Your task to perform on an android device: uninstall "Google Sheets" Image 0: 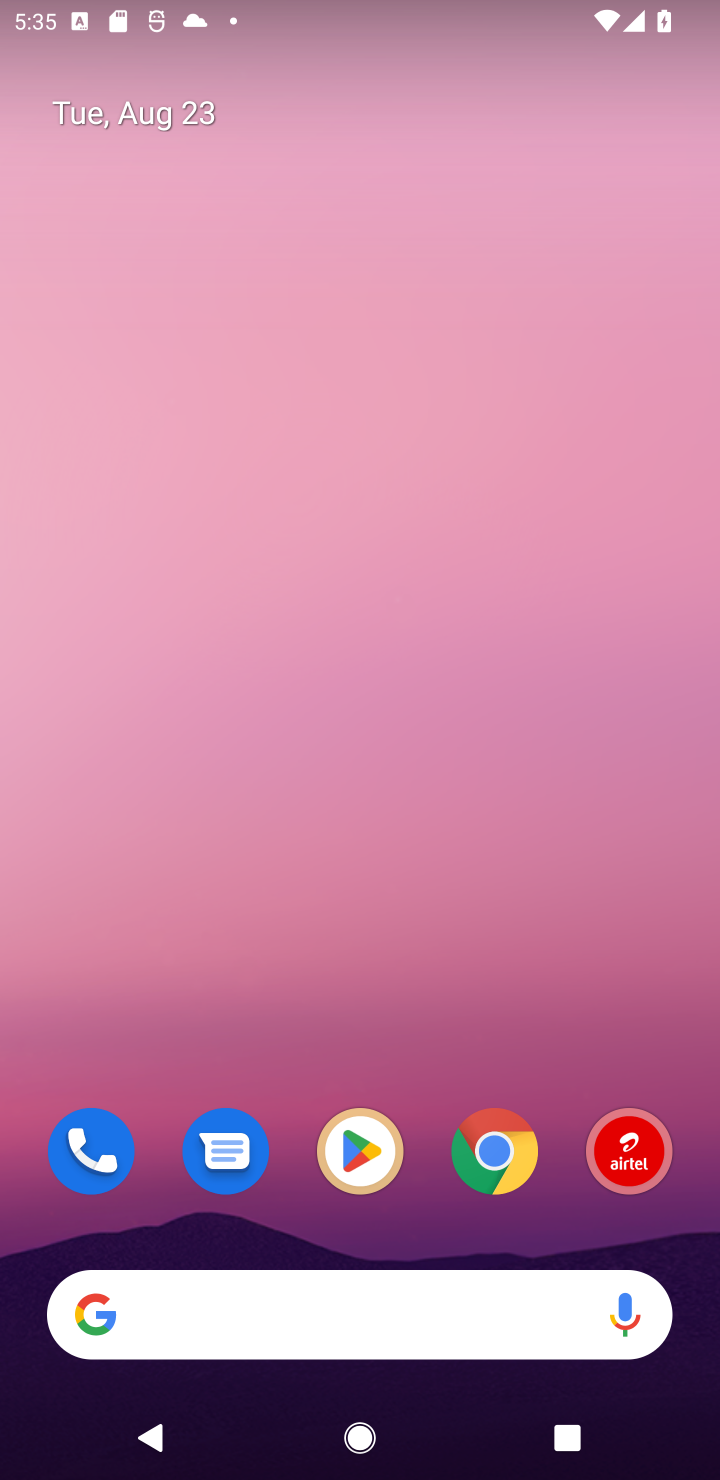
Step 0: press home button
Your task to perform on an android device: uninstall "Google Sheets" Image 1: 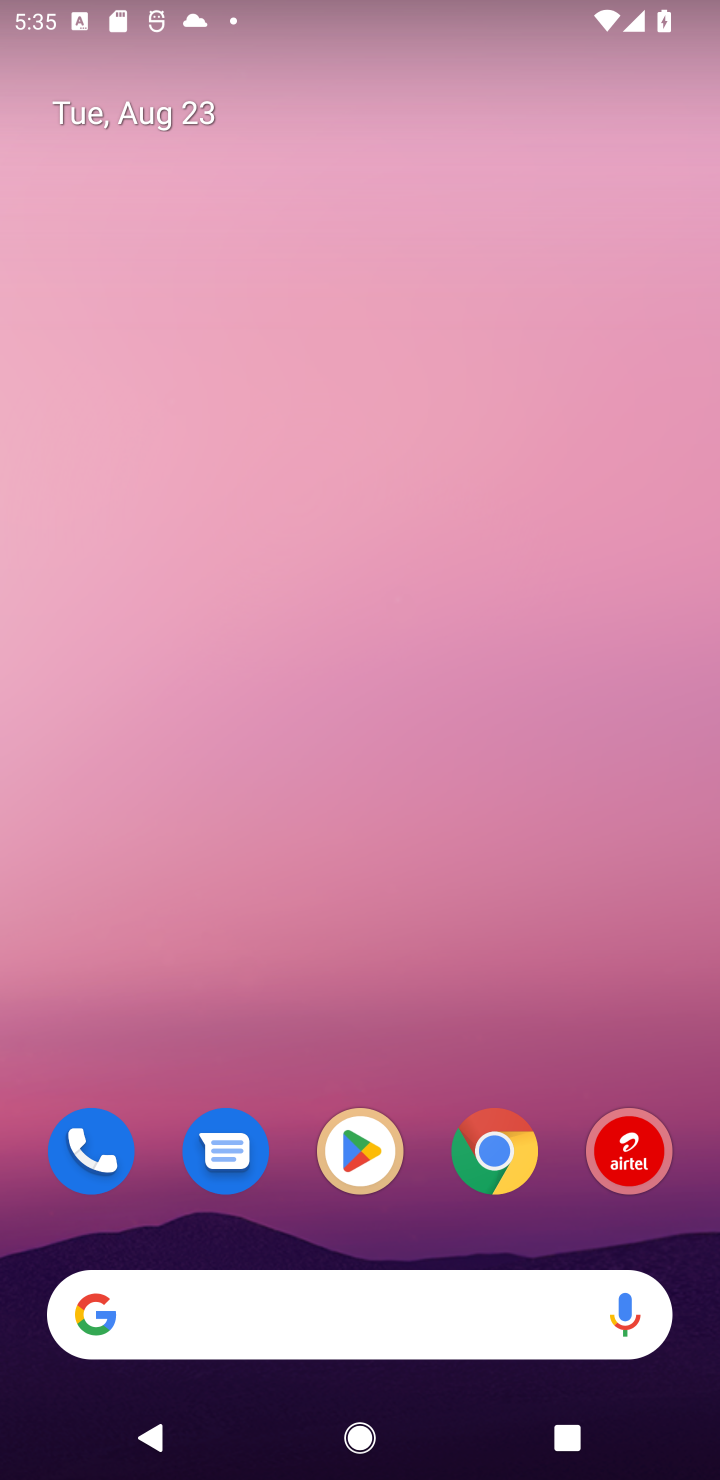
Step 1: click (363, 1158)
Your task to perform on an android device: uninstall "Google Sheets" Image 2: 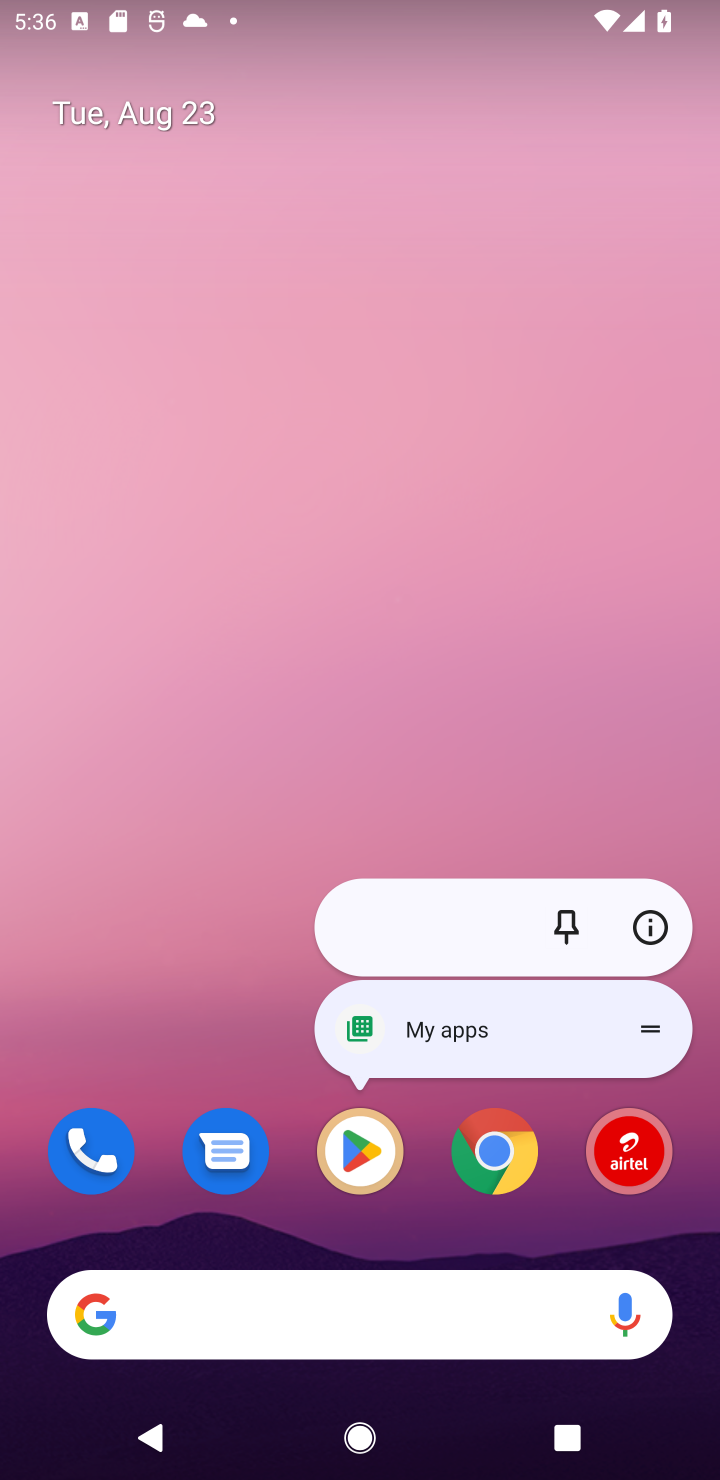
Step 2: click (363, 1161)
Your task to perform on an android device: uninstall "Google Sheets" Image 3: 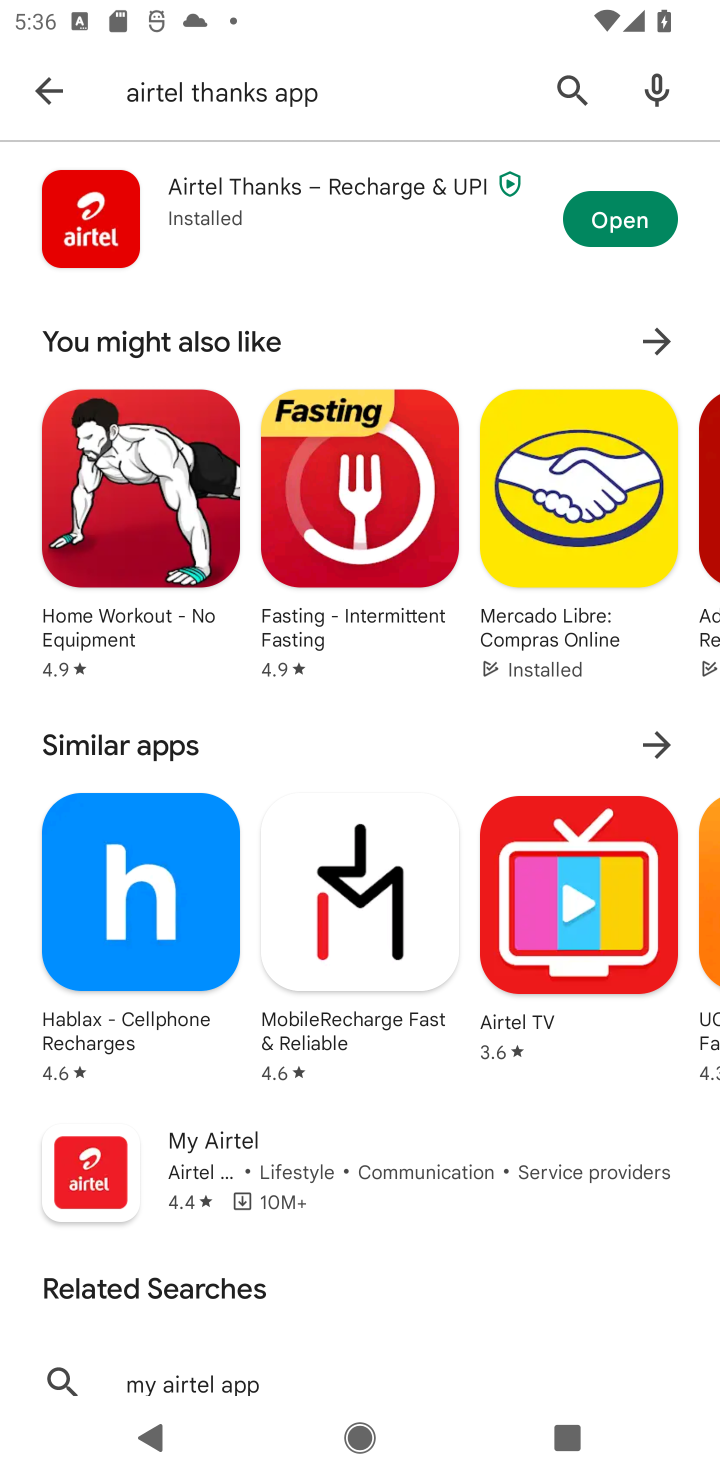
Step 3: click (557, 82)
Your task to perform on an android device: uninstall "Google Sheets" Image 4: 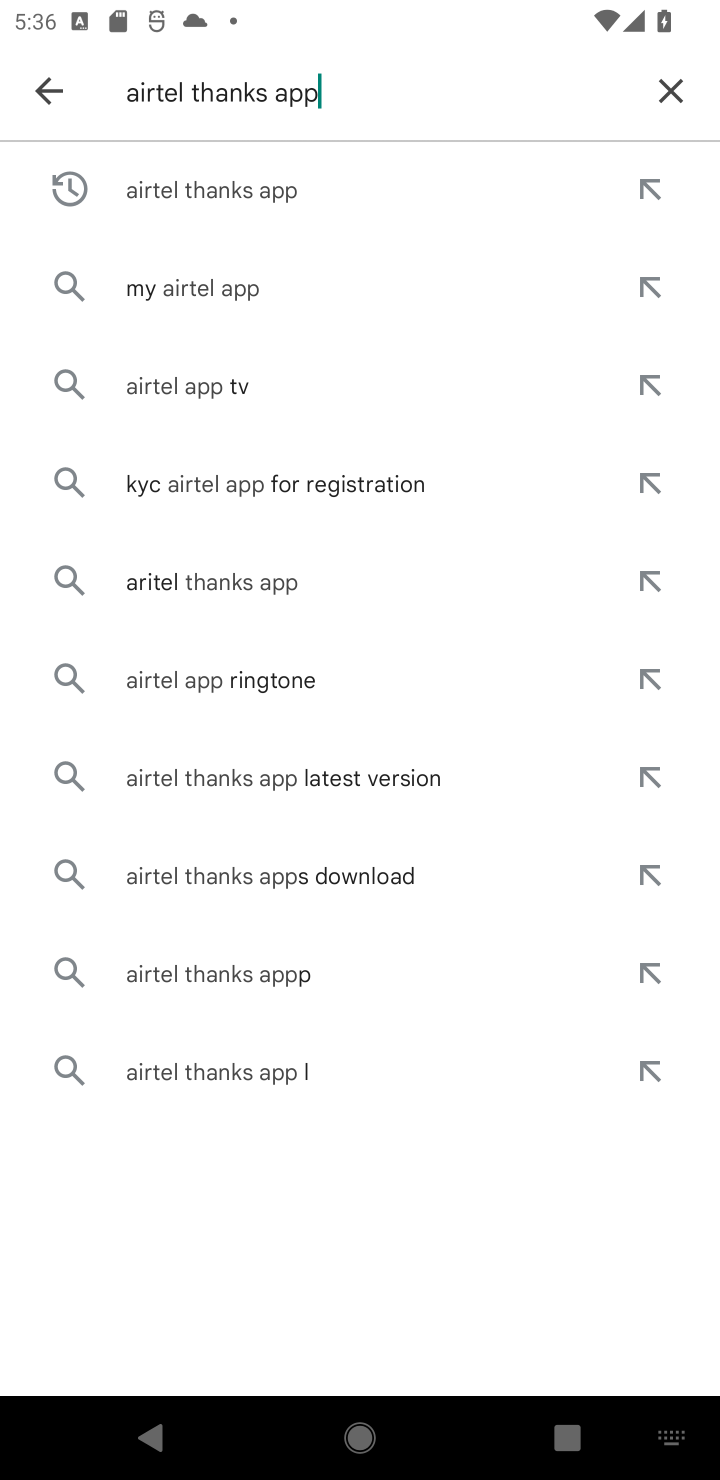
Step 4: click (673, 87)
Your task to perform on an android device: uninstall "Google Sheets" Image 5: 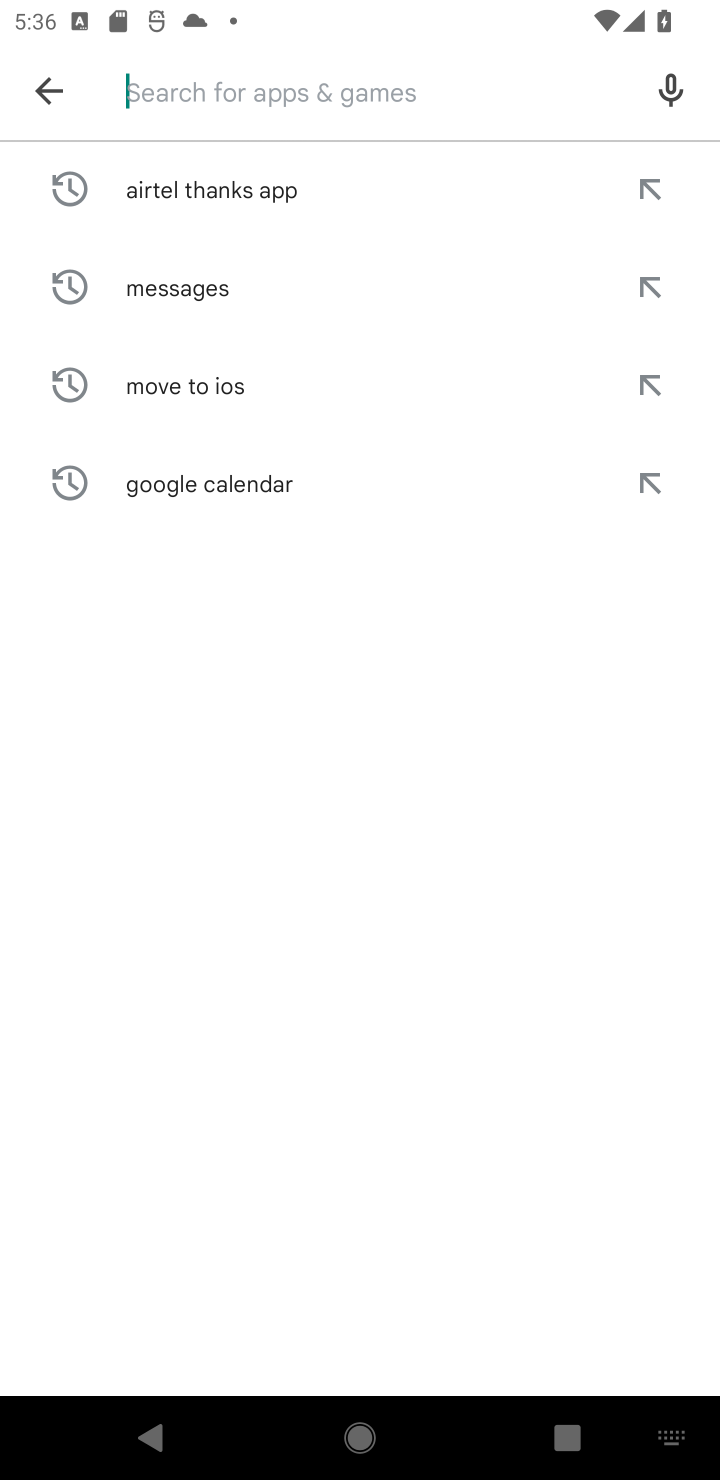
Step 5: type "Google Sheets"
Your task to perform on an android device: uninstall "Google Sheets" Image 6: 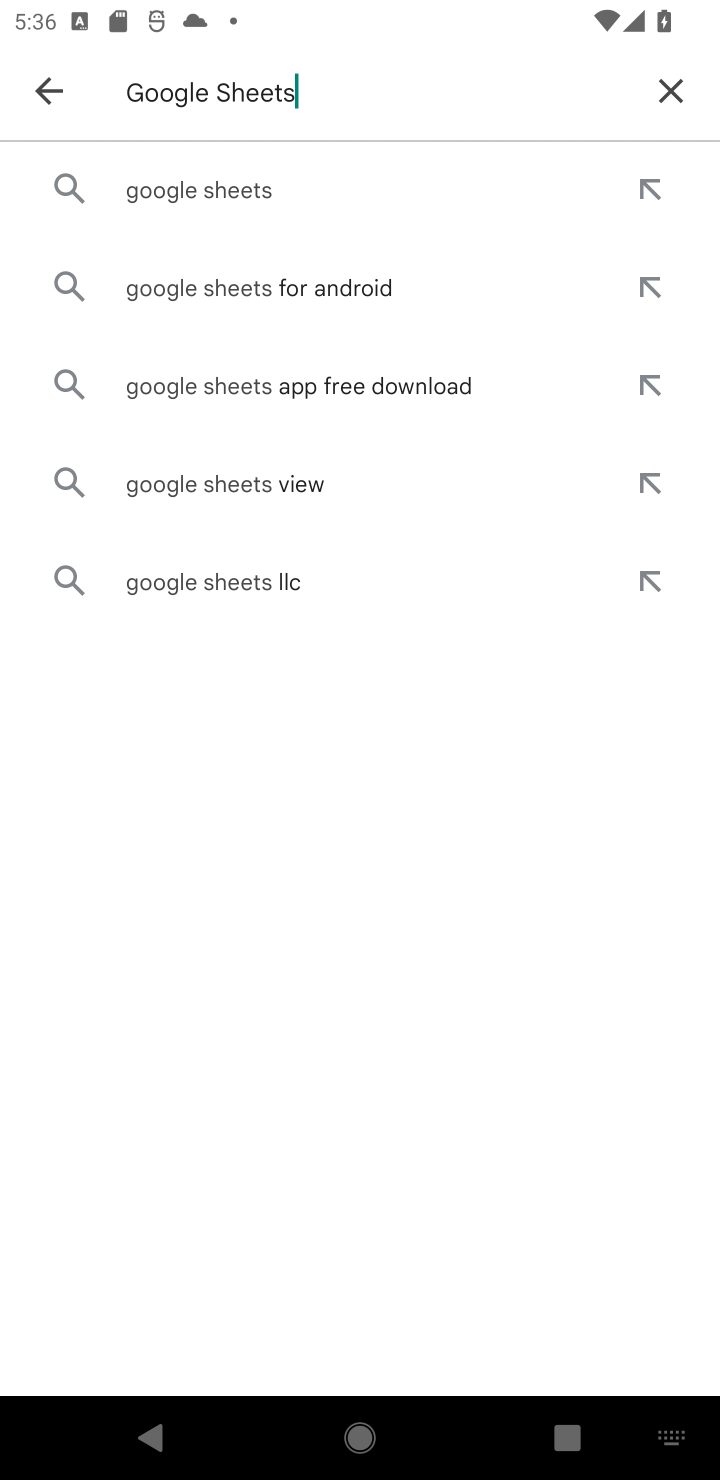
Step 6: click (259, 182)
Your task to perform on an android device: uninstall "Google Sheets" Image 7: 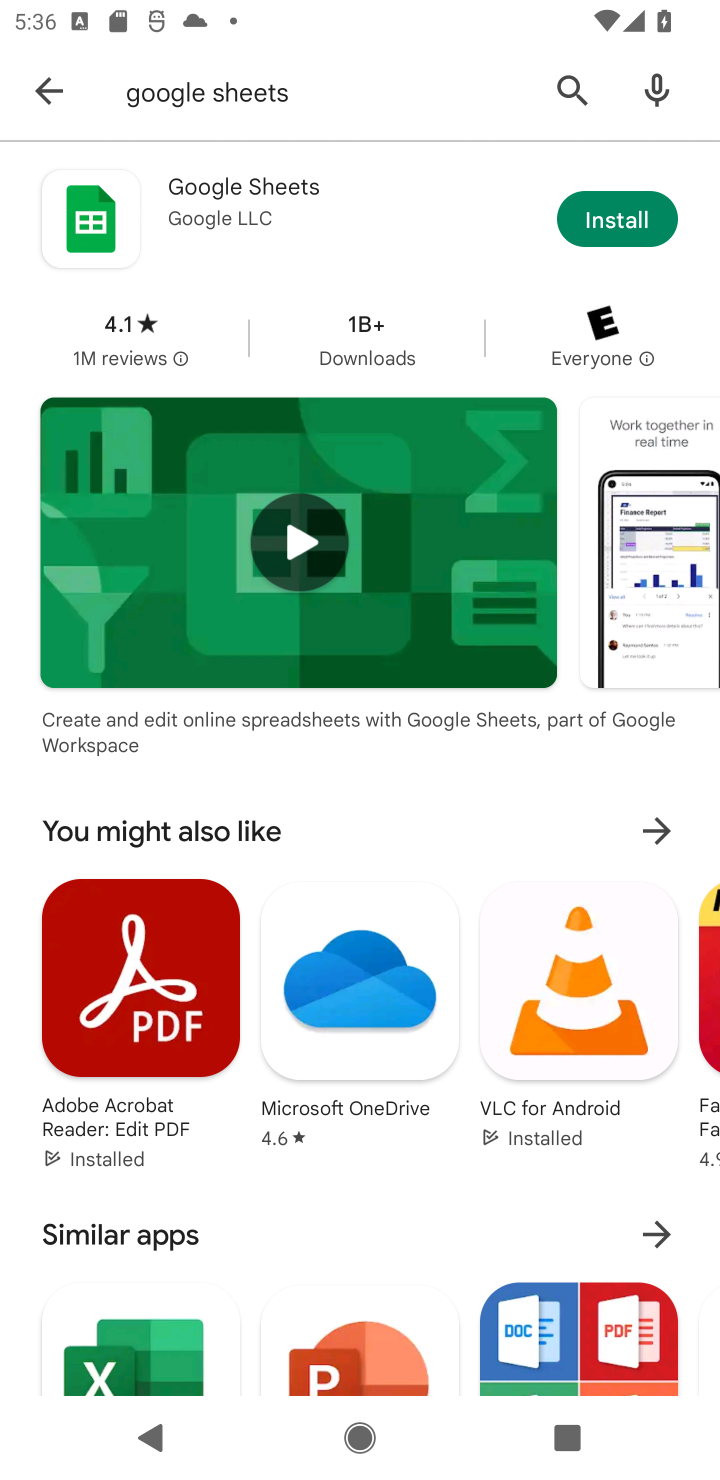
Step 7: task complete